Your task to perform on an android device: clear history in the chrome app Image 0: 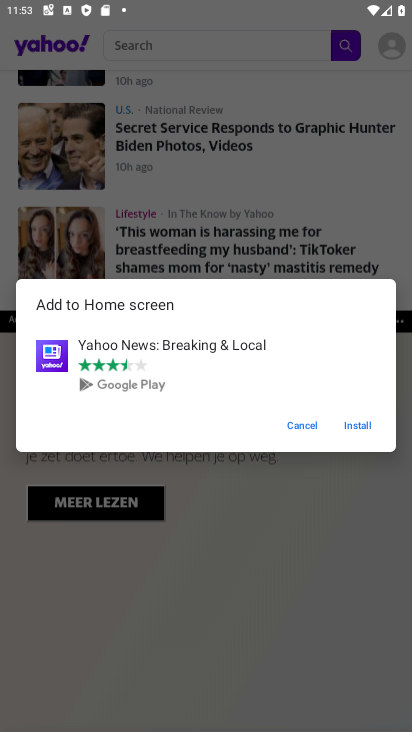
Step 0: press home button
Your task to perform on an android device: clear history in the chrome app Image 1: 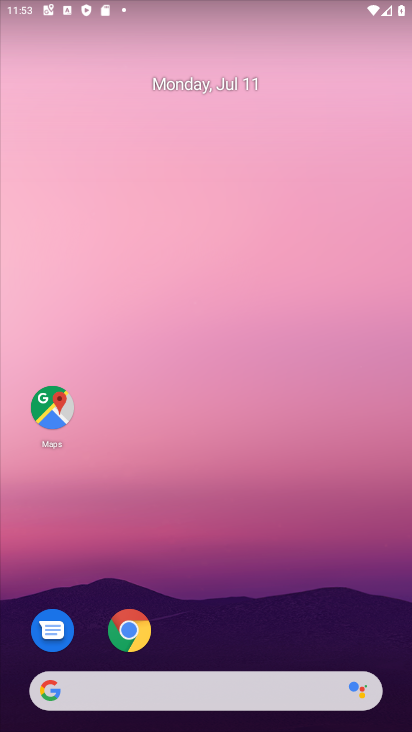
Step 1: click (130, 627)
Your task to perform on an android device: clear history in the chrome app Image 2: 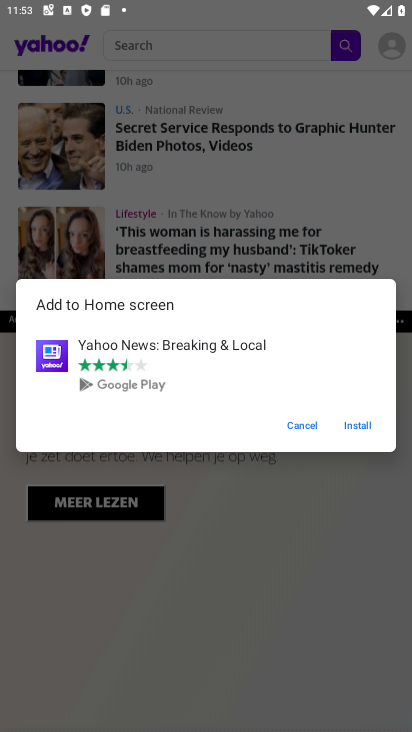
Step 2: click (299, 426)
Your task to perform on an android device: clear history in the chrome app Image 3: 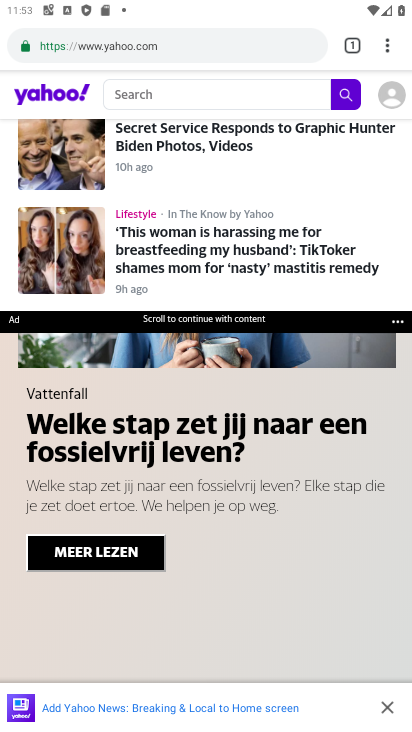
Step 3: click (380, 45)
Your task to perform on an android device: clear history in the chrome app Image 4: 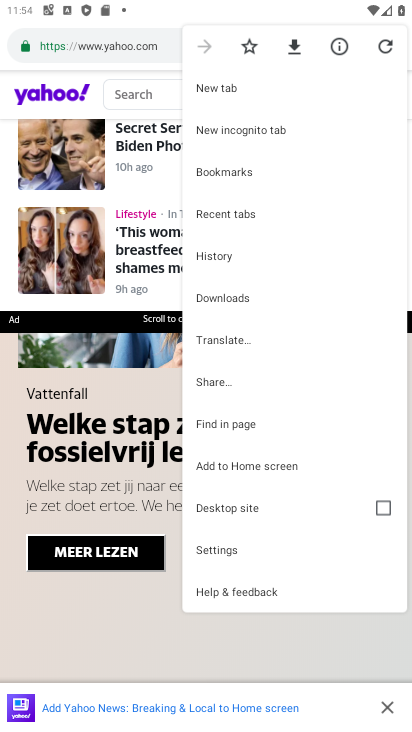
Step 4: click (215, 252)
Your task to perform on an android device: clear history in the chrome app Image 5: 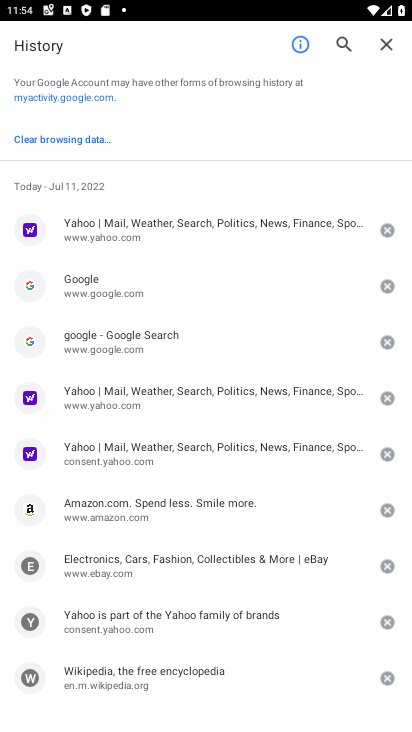
Step 5: click (35, 139)
Your task to perform on an android device: clear history in the chrome app Image 6: 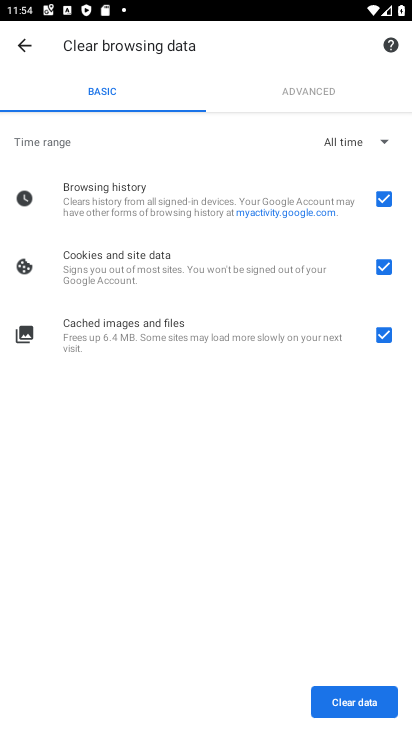
Step 6: click (386, 262)
Your task to perform on an android device: clear history in the chrome app Image 7: 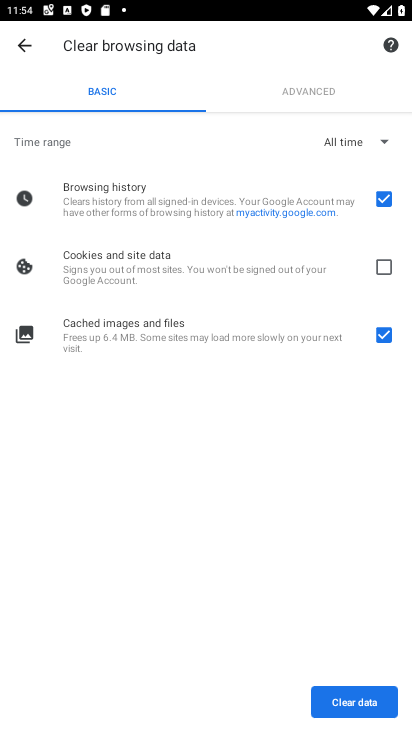
Step 7: click (388, 334)
Your task to perform on an android device: clear history in the chrome app Image 8: 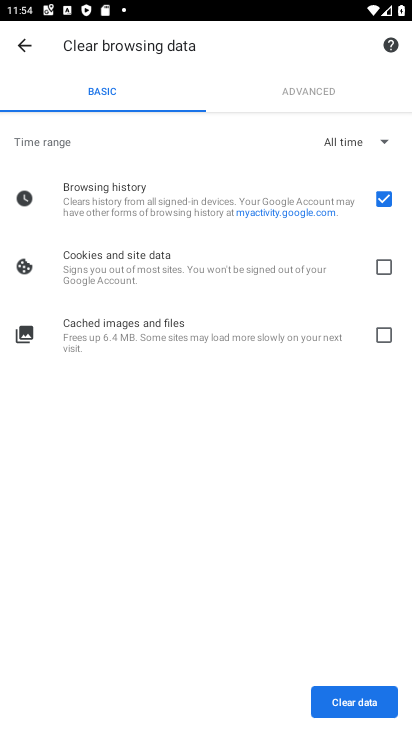
Step 8: click (352, 700)
Your task to perform on an android device: clear history in the chrome app Image 9: 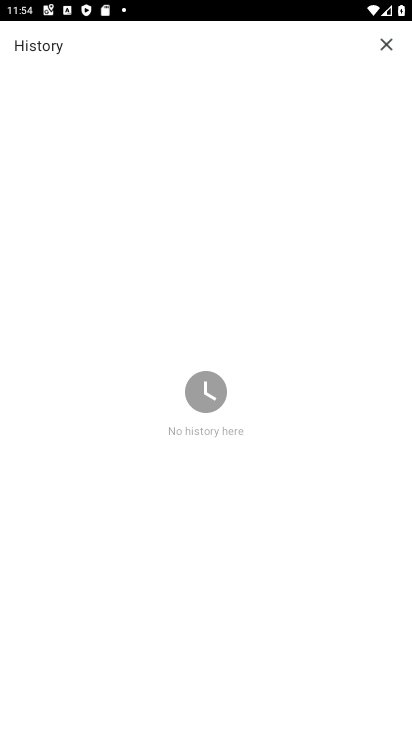
Step 9: task complete